Your task to perform on an android device: delete location history Image 0: 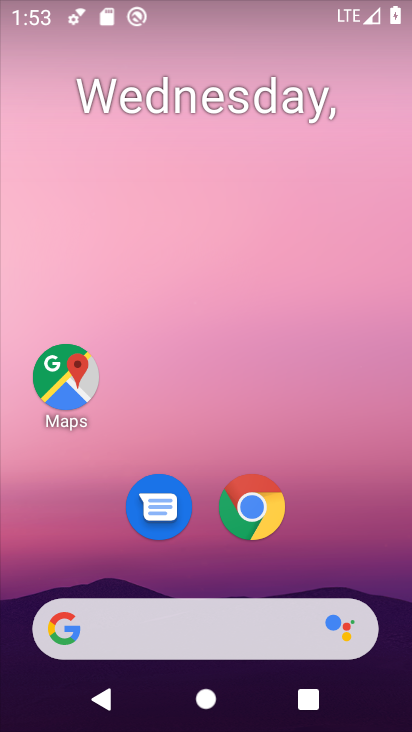
Step 0: drag from (348, 548) to (274, 0)
Your task to perform on an android device: delete location history Image 1: 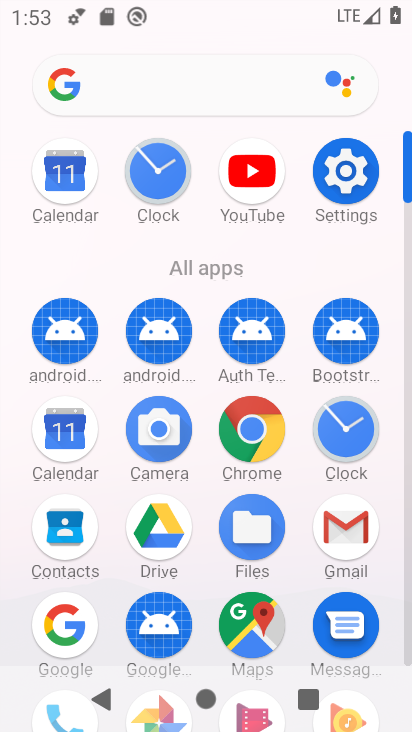
Step 1: click (243, 621)
Your task to perform on an android device: delete location history Image 2: 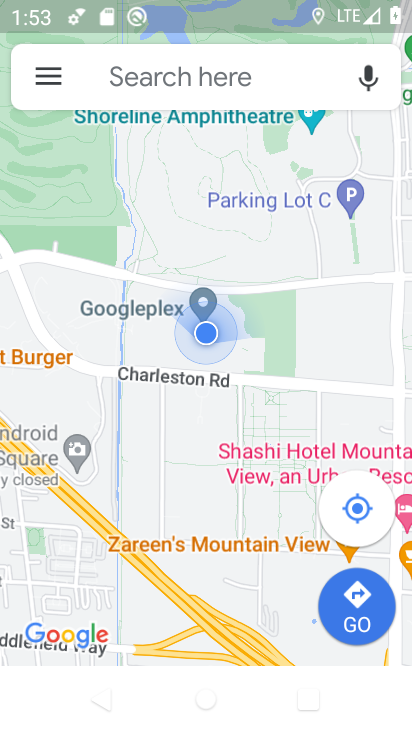
Step 2: click (49, 76)
Your task to perform on an android device: delete location history Image 3: 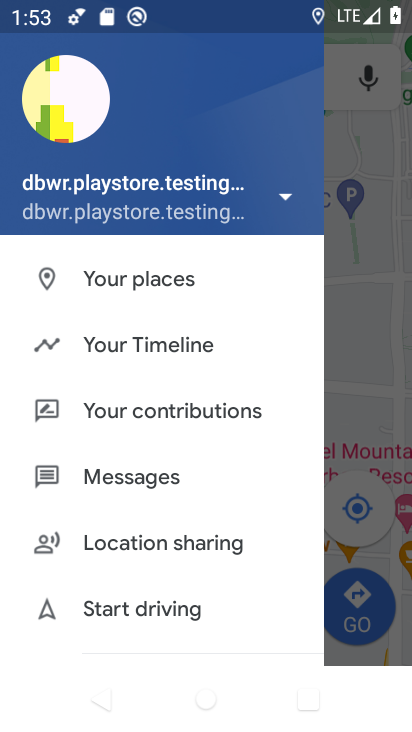
Step 3: drag from (125, 601) to (134, 428)
Your task to perform on an android device: delete location history Image 4: 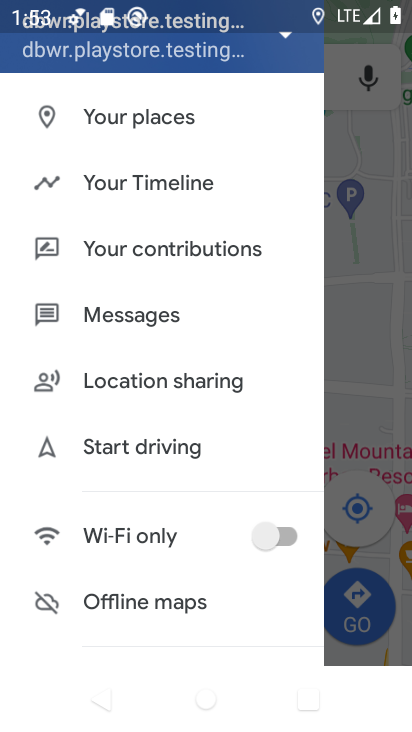
Step 4: click (145, 196)
Your task to perform on an android device: delete location history Image 5: 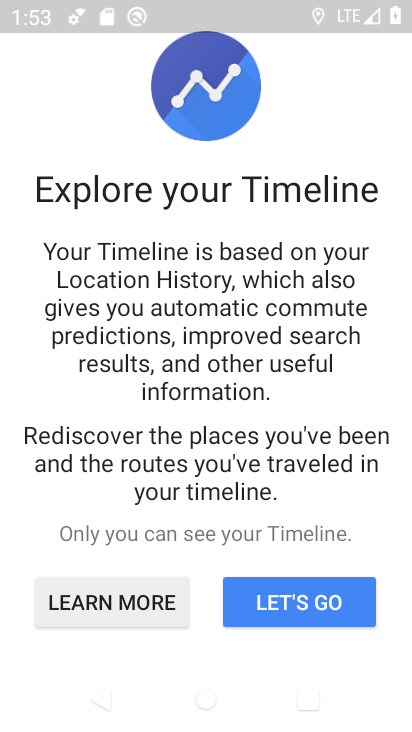
Step 5: click (273, 599)
Your task to perform on an android device: delete location history Image 6: 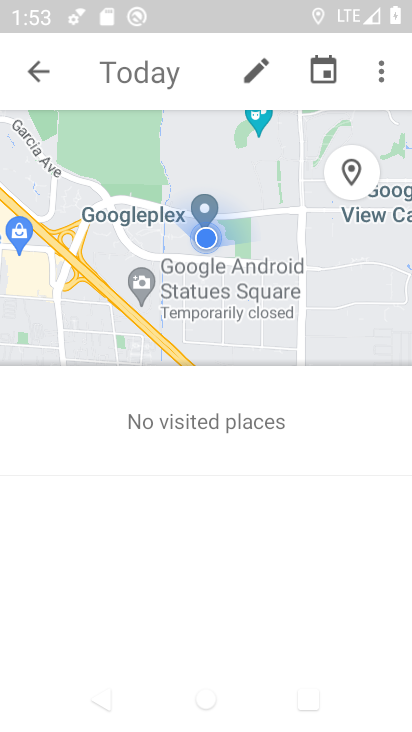
Step 6: click (369, 58)
Your task to perform on an android device: delete location history Image 7: 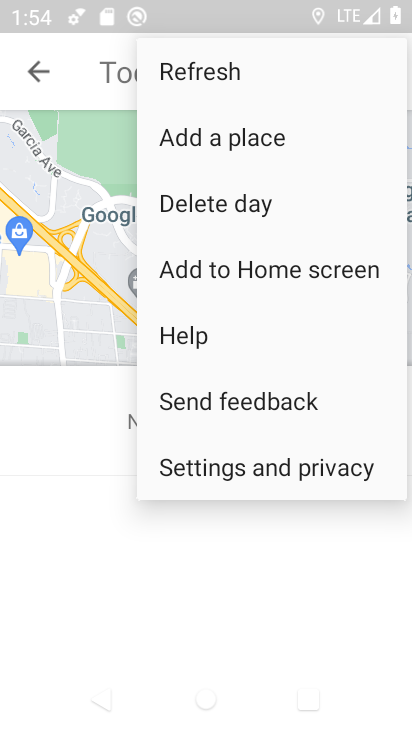
Step 7: click (252, 462)
Your task to perform on an android device: delete location history Image 8: 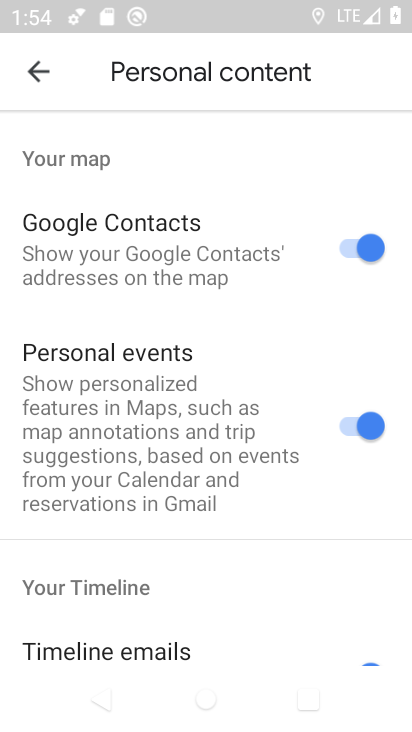
Step 8: drag from (238, 580) to (205, 174)
Your task to perform on an android device: delete location history Image 9: 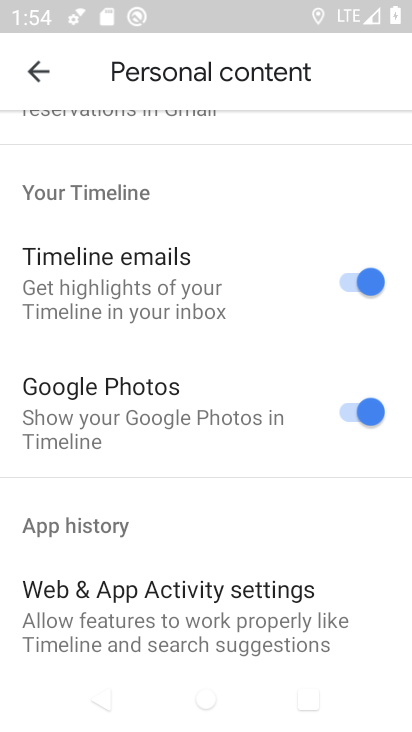
Step 9: drag from (234, 574) to (238, 309)
Your task to perform on an android device: delete location history Image 10: 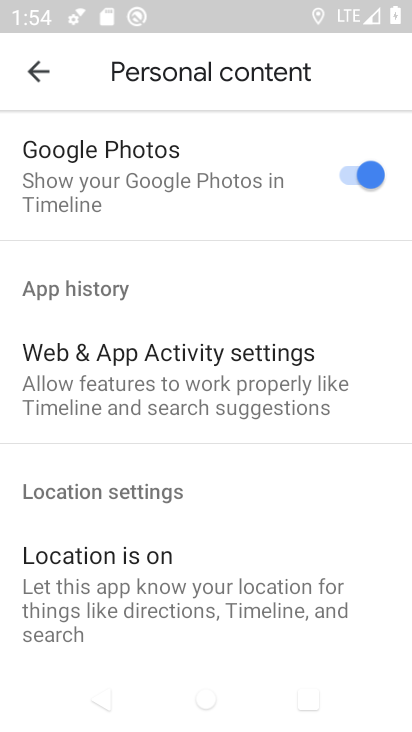
Step 10: drag from (203, 561) to (248, 295)
Your task to perform on an android device: delete location history Image 11: 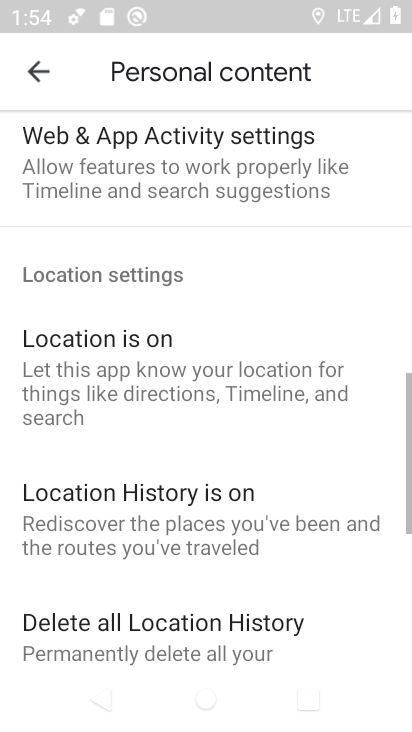
Step 11: drag from (239, 569) to (269, 342)
Your task to perform on an android device: delete location history Image 12: 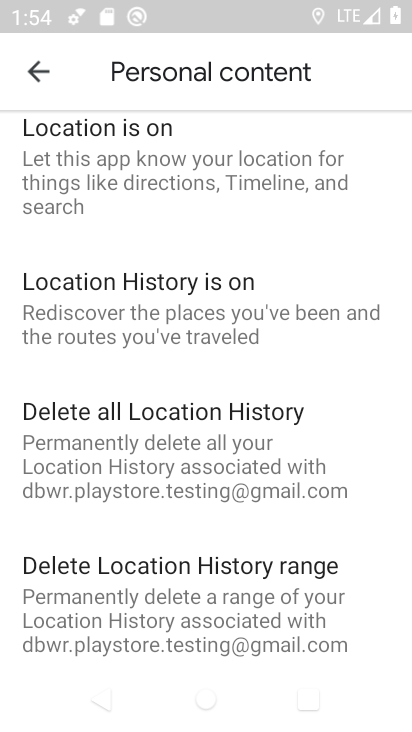
Step 12: click (212, 447)
Your task to perform on an android device: delete location history Image 13: 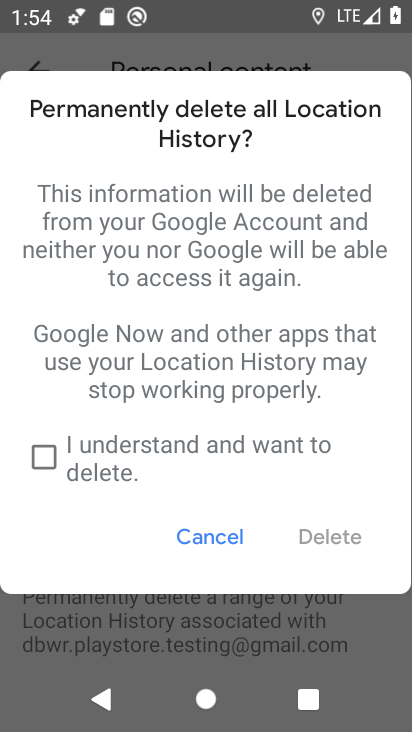
Step 13: click (103, 465)
Your task to perform on an android device: delete location history Image 14: 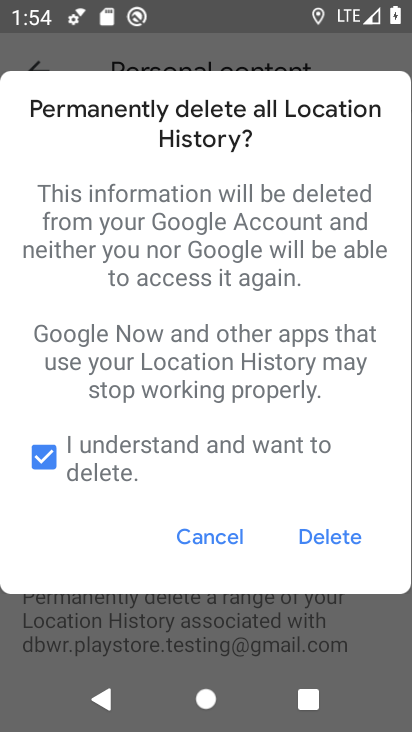
Step 14: click (334, 527)
Your task to perform on an android device: delete location history Image 15: 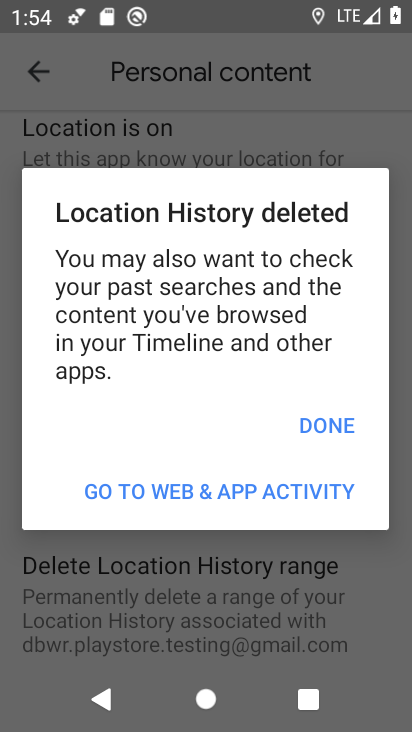
Step 15: click (304, 430)
Your task to perform on an android device: delete location history Image 16: 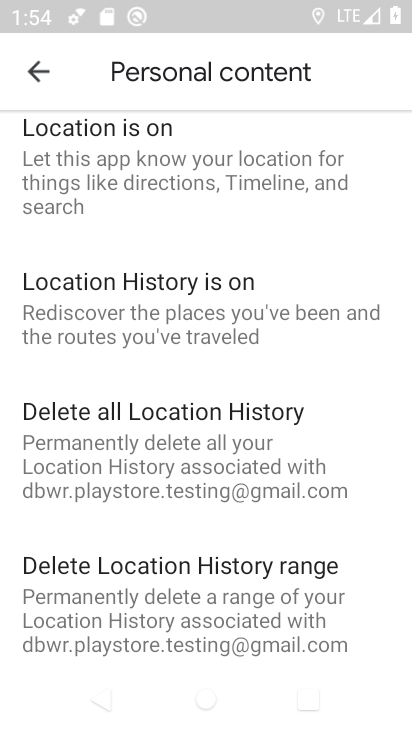
Step 16: task complete